Your task to perform on an android device: Open Google Image 0: 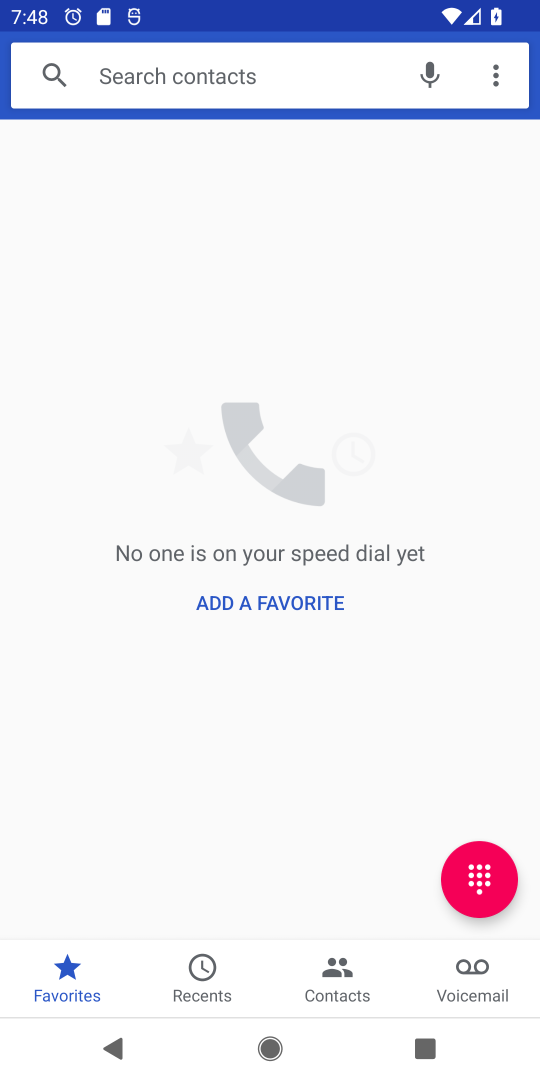
Step 0: press home button
Your task to perform on an android device: Open Google Image 1: 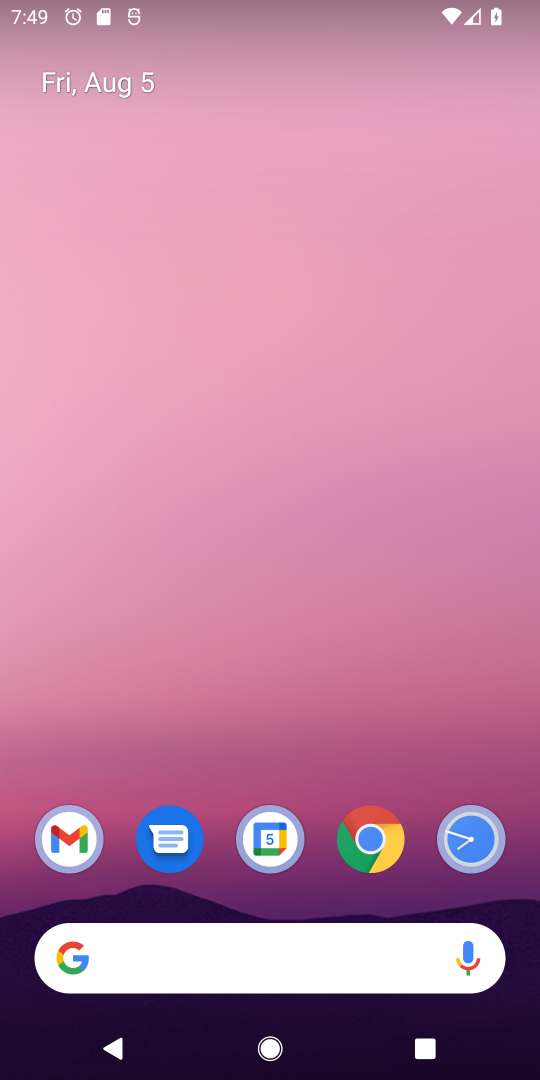
Step 1: drag from (253, 748) to (276, 214)
Your task to perform on an android device: Open Google Image 2: 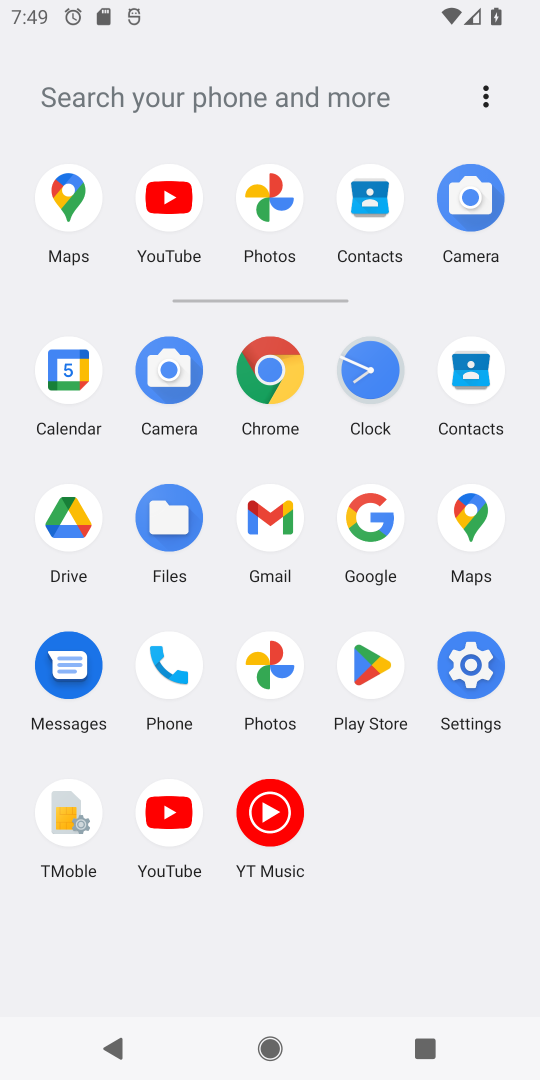
Step 2: click (357, 534)
Your task to perform on an android device: Open Google Image 3: 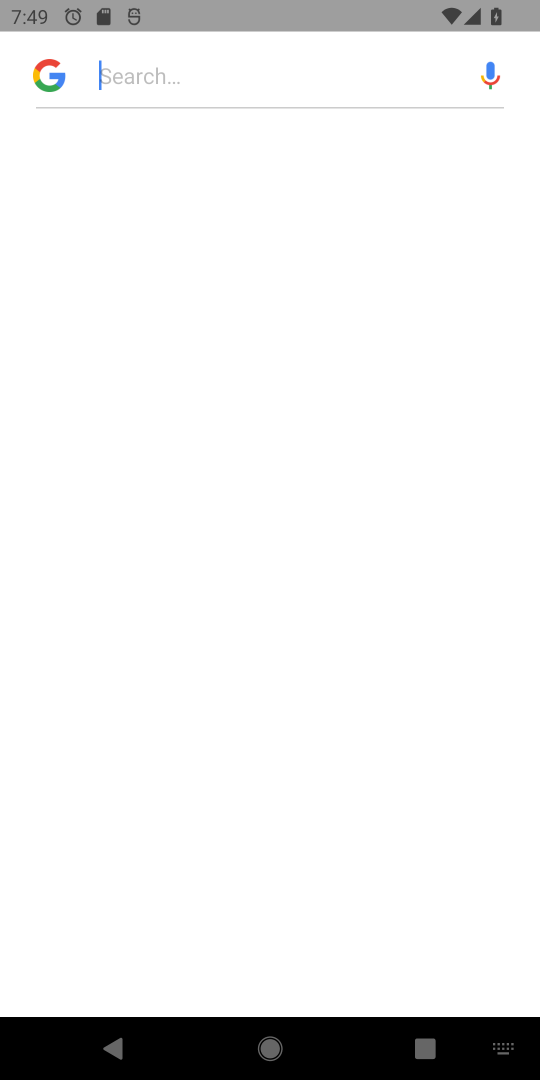
Step 3: task complete